Your task to perform on an android device: Search for "amazon basics triple a" on amazon.com, select the first entry, add it to the cart, then select checkout. Image 0: 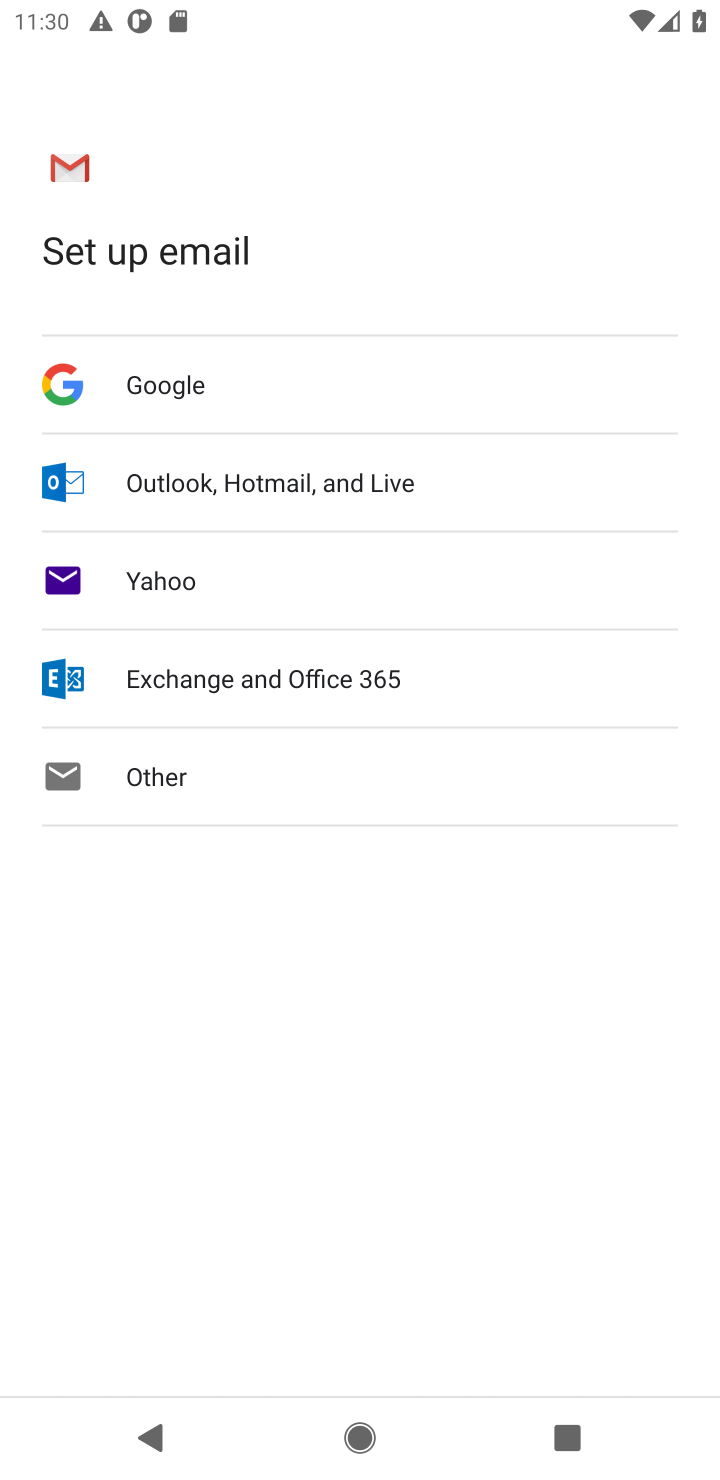
Step 0: press home button
Your task to perform on an android device: Search for "amazon basics triple a" on amazon.com, select the first entry, add it to the cart, then select checkout. Image 1: 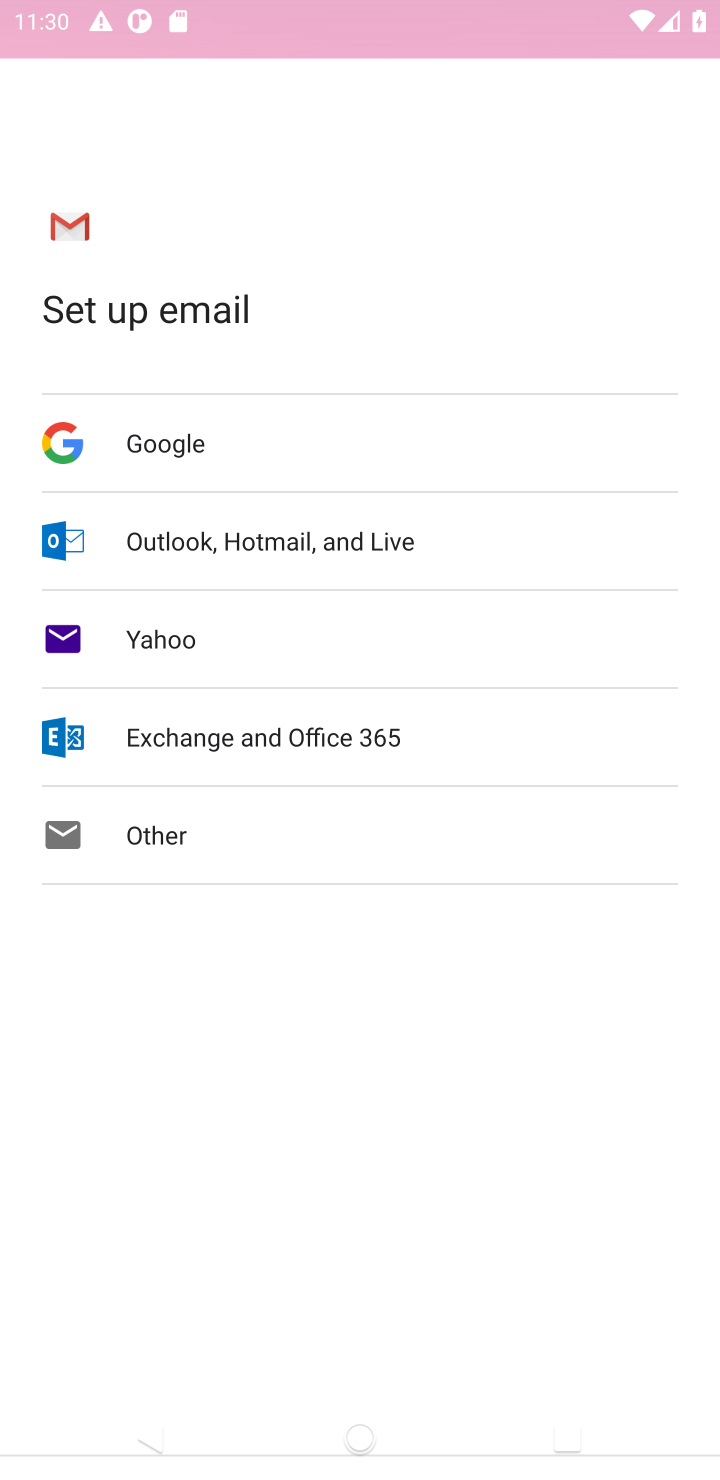
Step 1: press home button
Your task to perform on an android device: Search for "amazon basics triple a" on amazon.com, select the first entry, add it to the cart, then select checkout. Image 2: 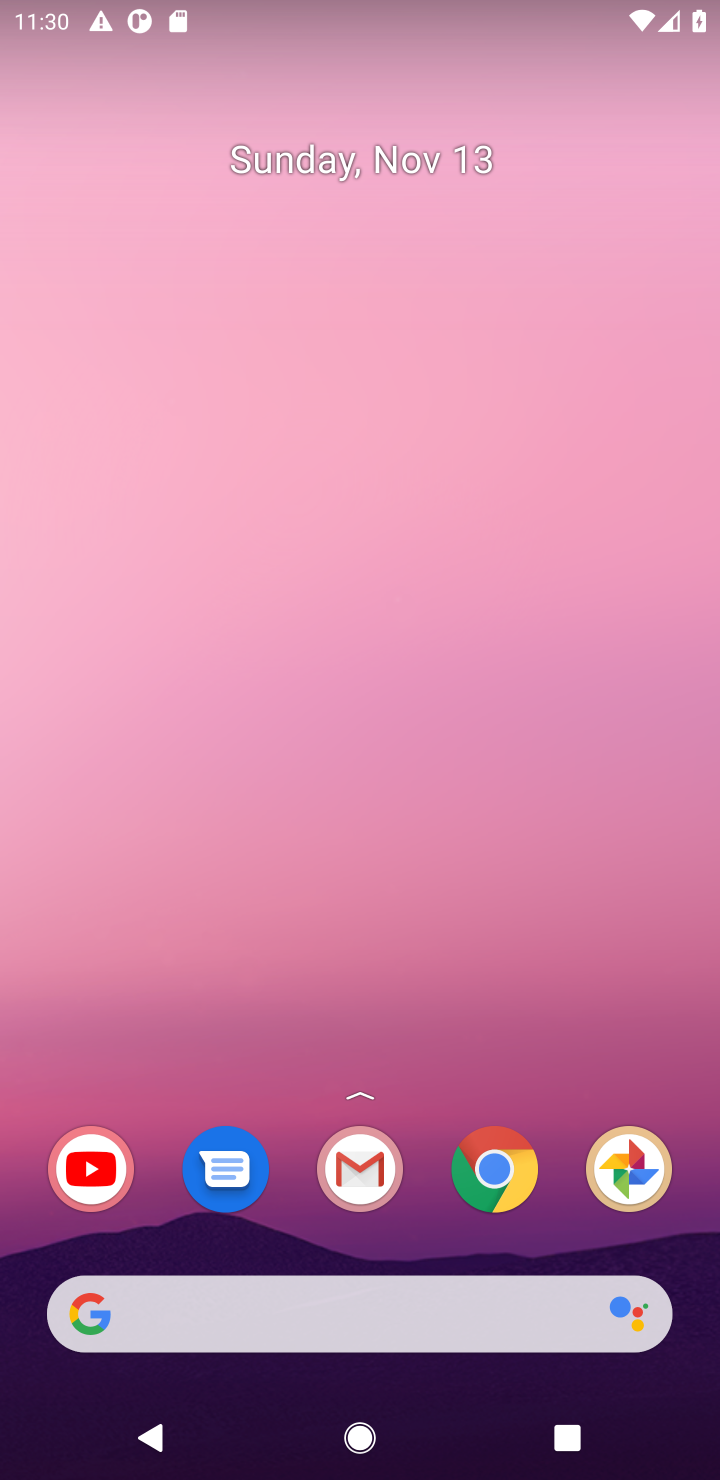
Step 2: drag from (559, 647) to (600, 1)
Your task to perform on an android device: Search for "amazon basics triple a" on amazon.com, select the first entry, add it to the cart, then select checkout. Image 3: 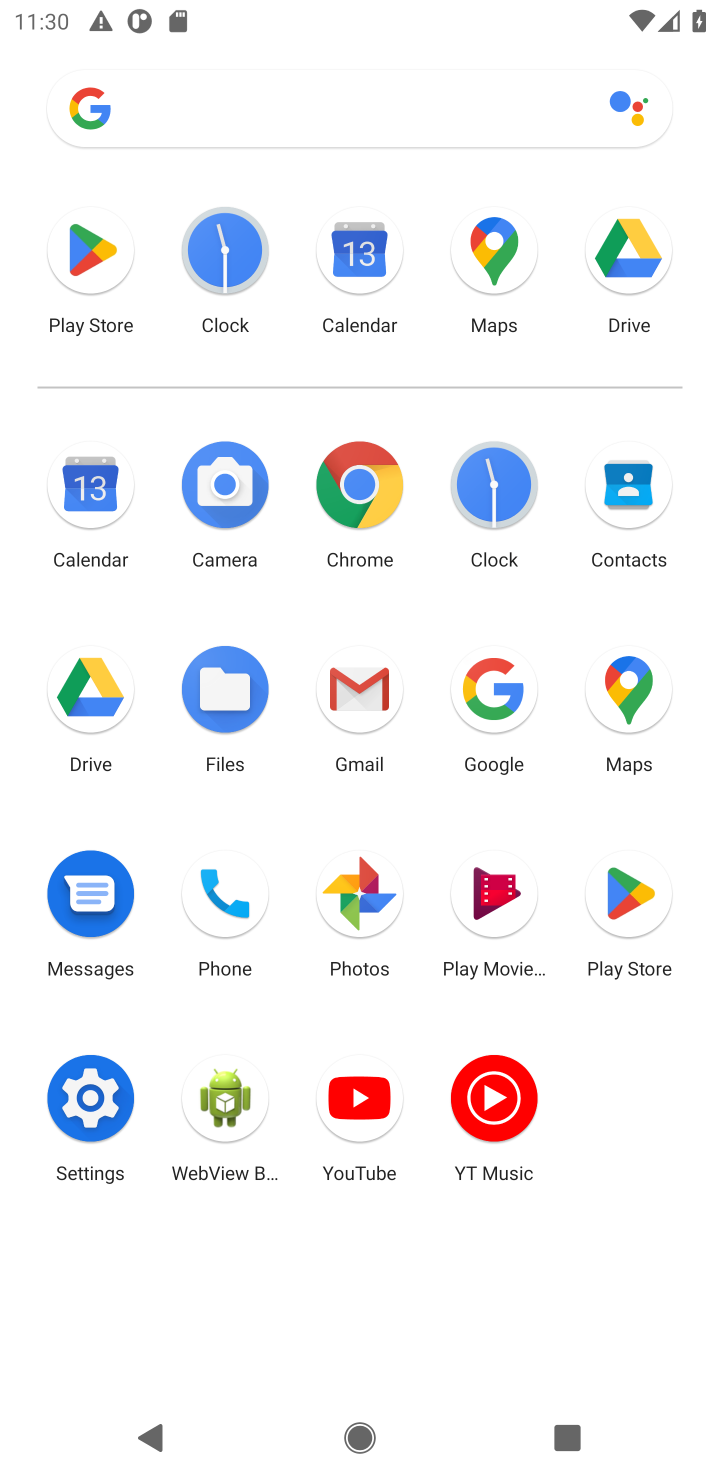
Step 3: click (364, 491)
Your task to perform on an android device: Search for "amazon basics triple a" on amazon.com, select the first entry, add it to the cart, then select checkout. Image 4: 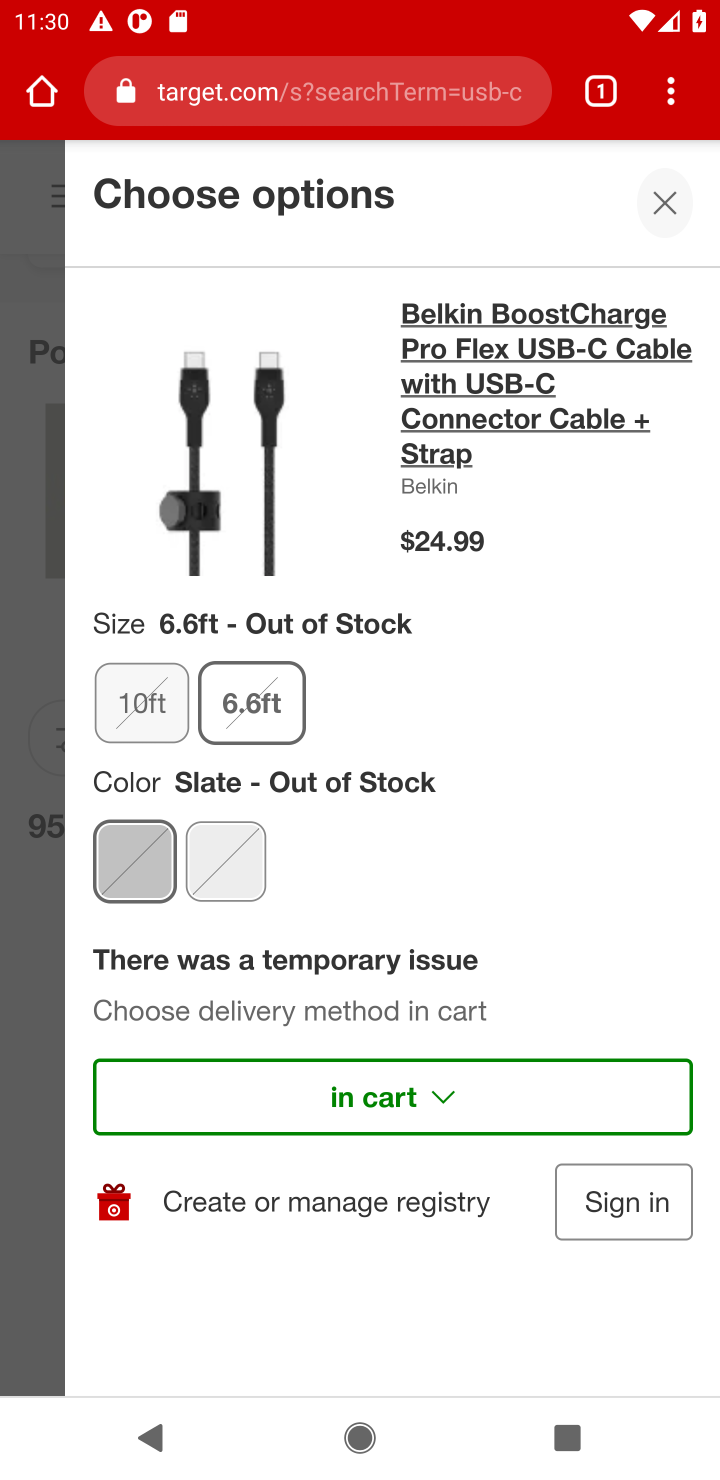
Step 4: click (361, 110)
Your task to perform on an android device: Search for "amazon basics triple a" on amazon.com, select the first entry, add it to the cart, then select checkout. Image 5: 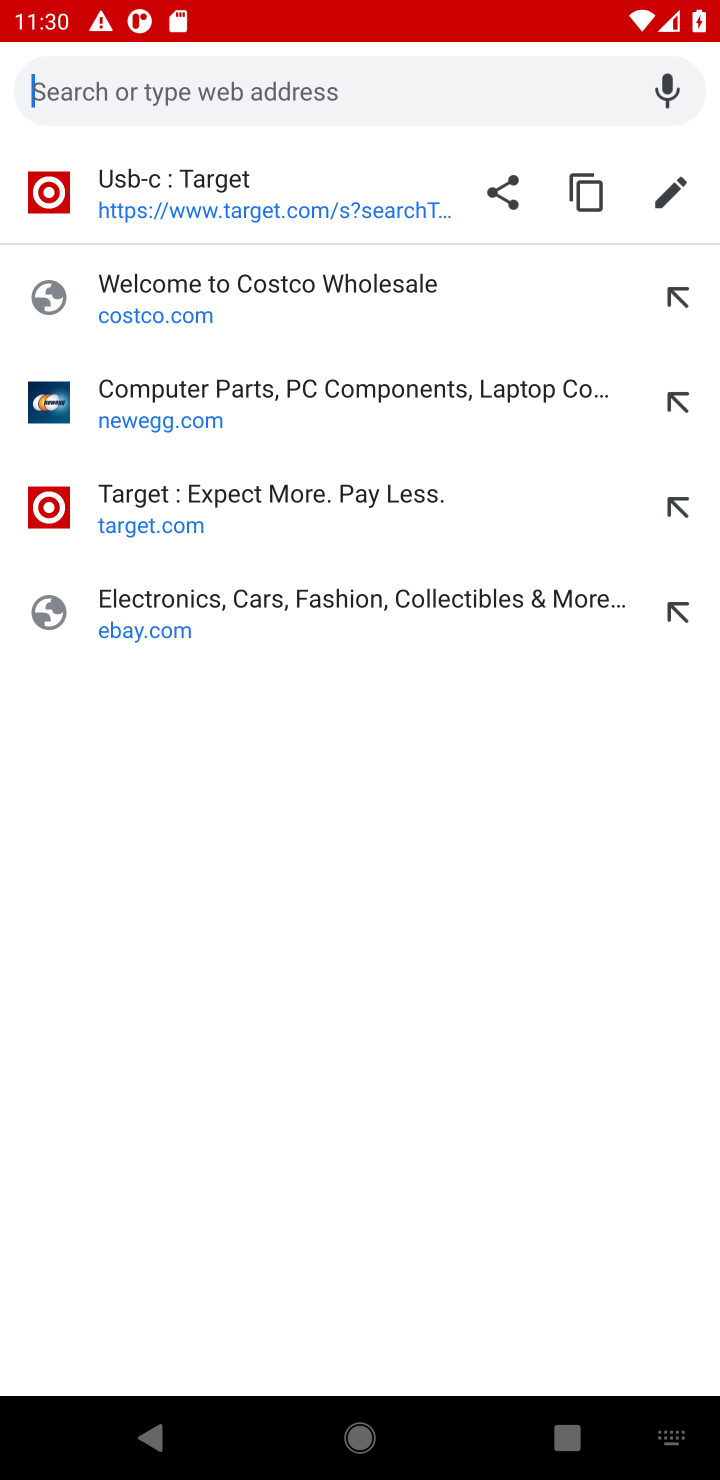
Step 5: type "amazon.com"
Your task to perform on an android device: Search for "amazon basics triple a" on amazon.com, select the first entry, add it to the cart, then select checkout. Image 6: 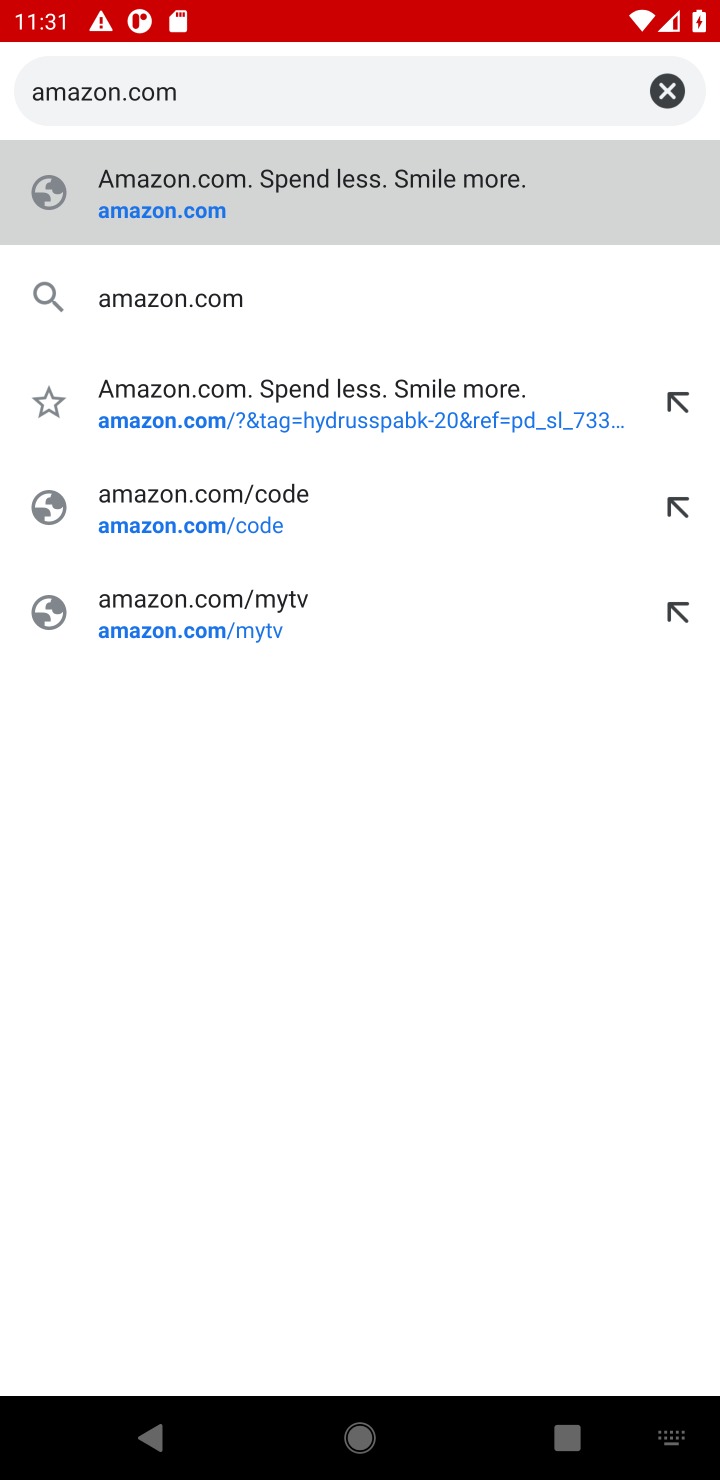
Step 6: press enter
Your task to perform on an android device: Search for "amazon basics triple a" on amazon.com, select the first entry, add it to the cart, then select checkout. Image 7: 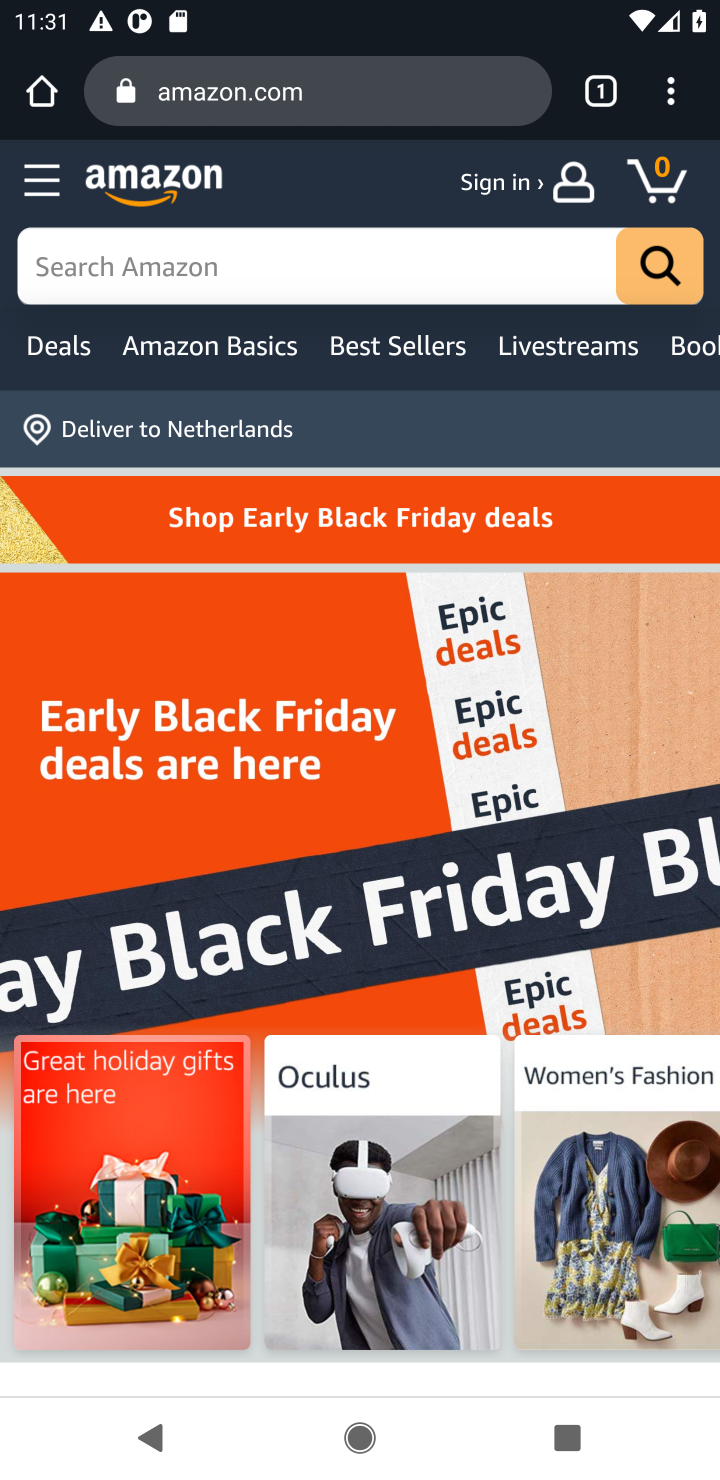
Step 7: click (343, 266)
Your task to perform on an android device: Search for "amazon basics triple a" on amazon.com, select the first entry, add it to the cart, then select checkout. Image 8: 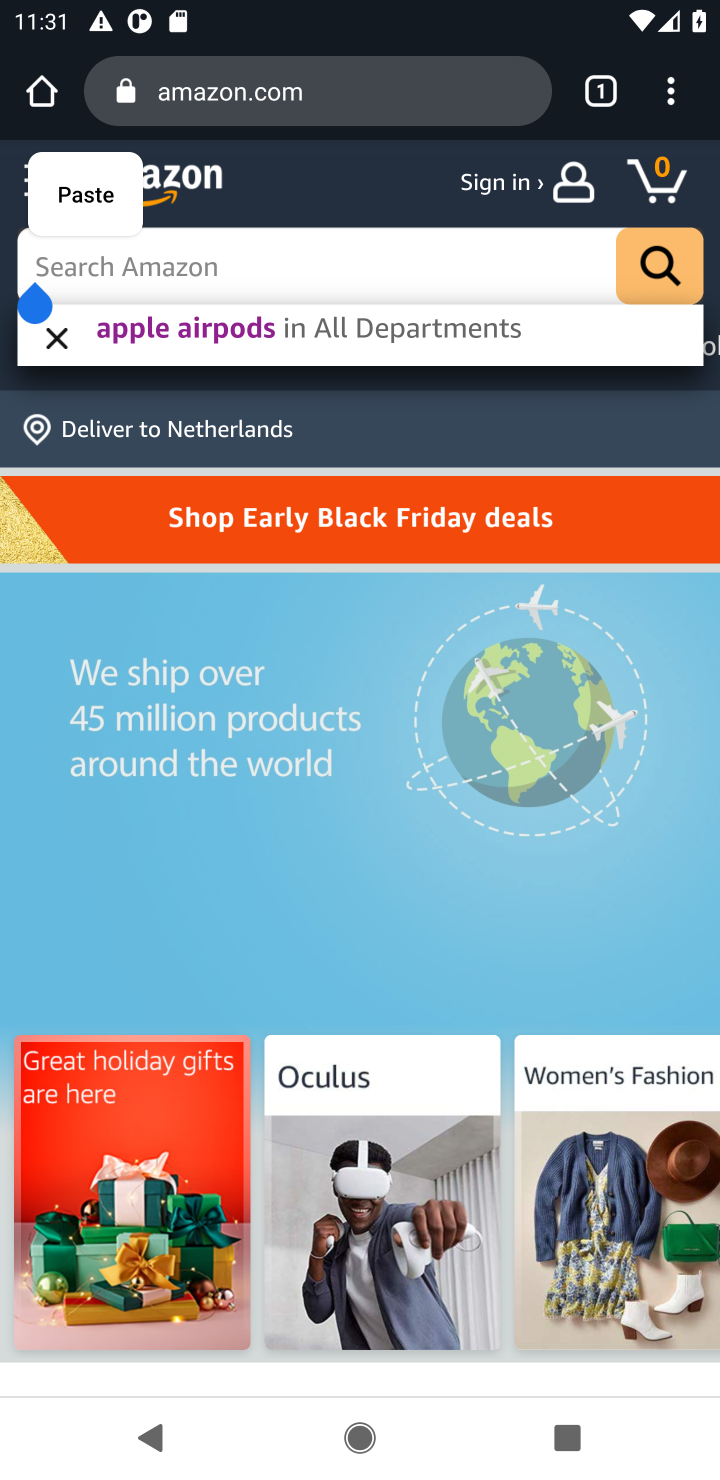
Step 8: type "amazon basics triple a"
Your task to perform on an android device: Search for "amazon basics triple a" on amazon.com, select the first entry, add it to the cart, then select checkout. Image 9: 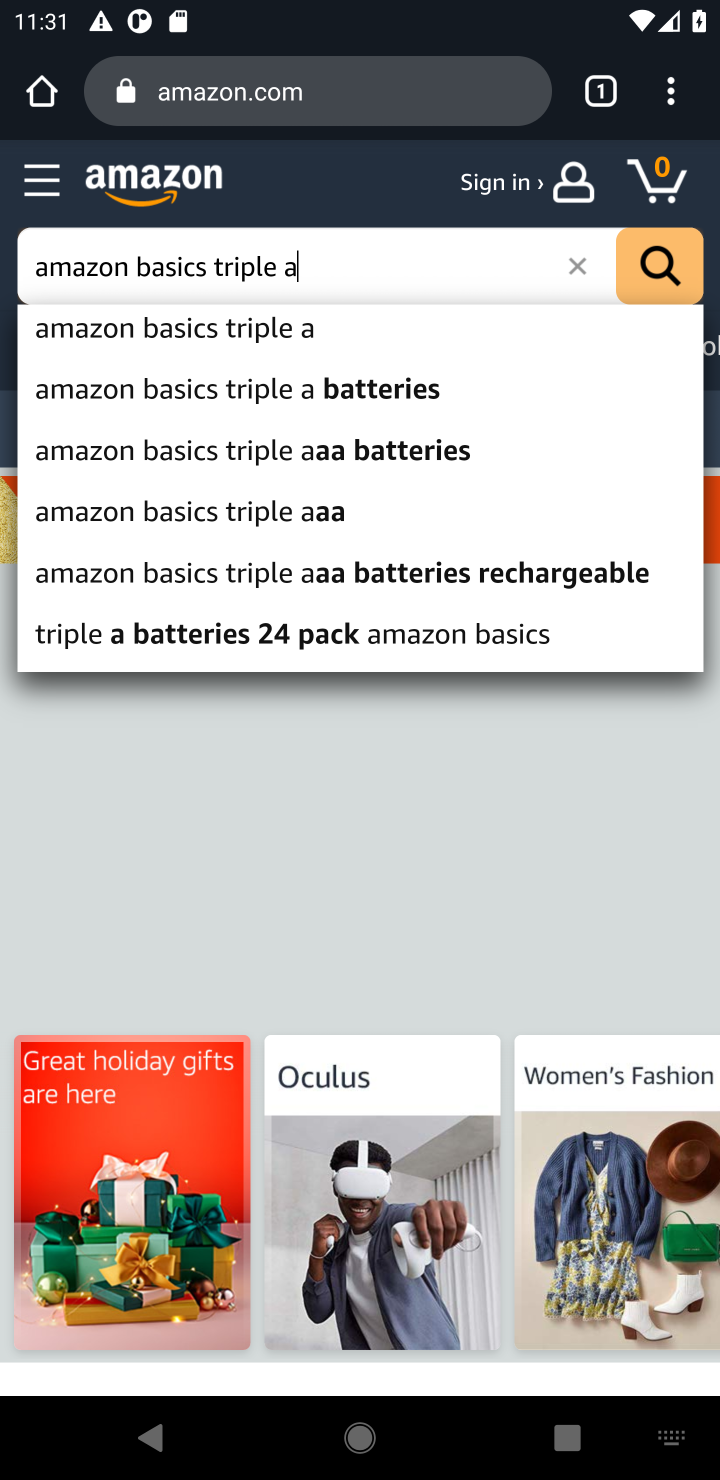
Step 9: press enter
Your task to perform on an android device: Search for "amazon basics triple a" on amazon.com, select the first entry, add it to the cart, then select checkout. Image 10: 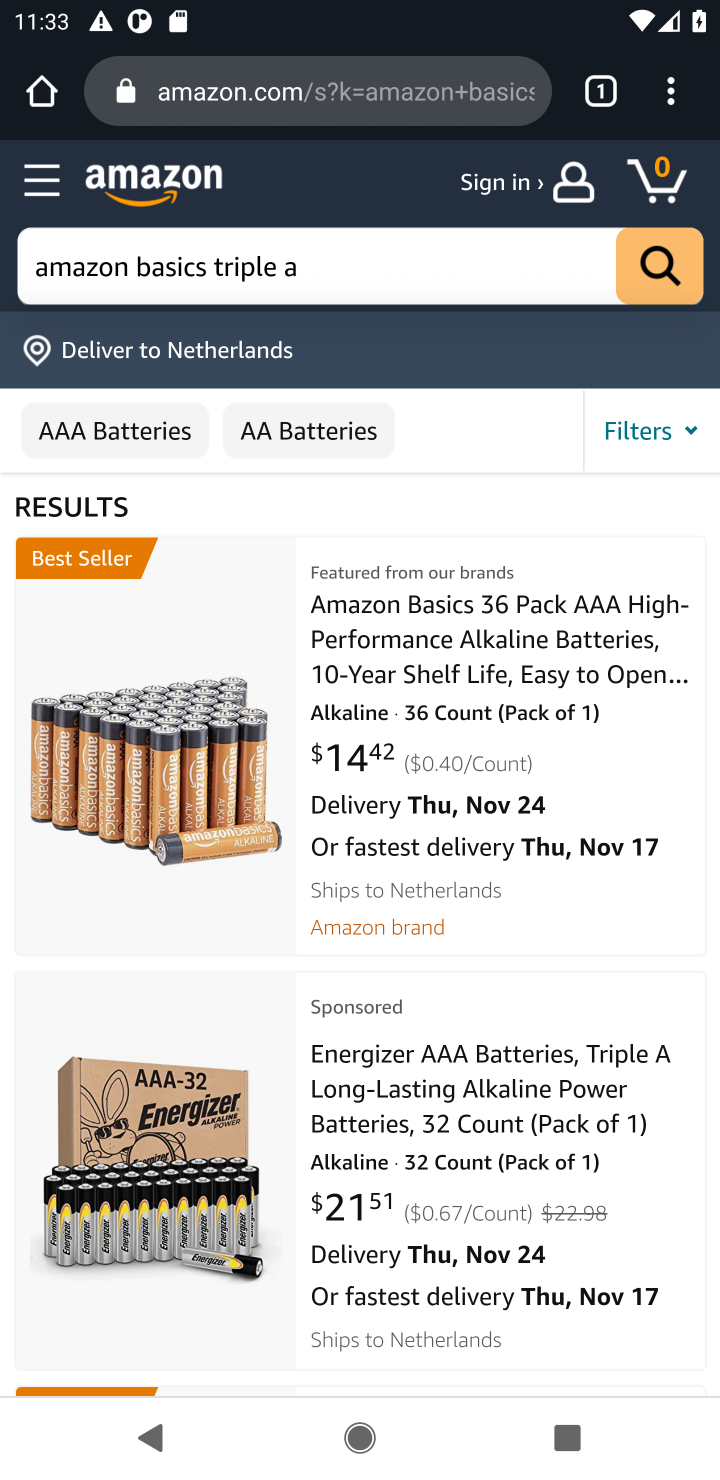
Step 10: drag from (356, 1235) to (419, 371)
Your task to perform on an android device: Search for "amazon basics triple a" on amazon.com, select the first entry, add it to the cart, then select checkout. Image 11: 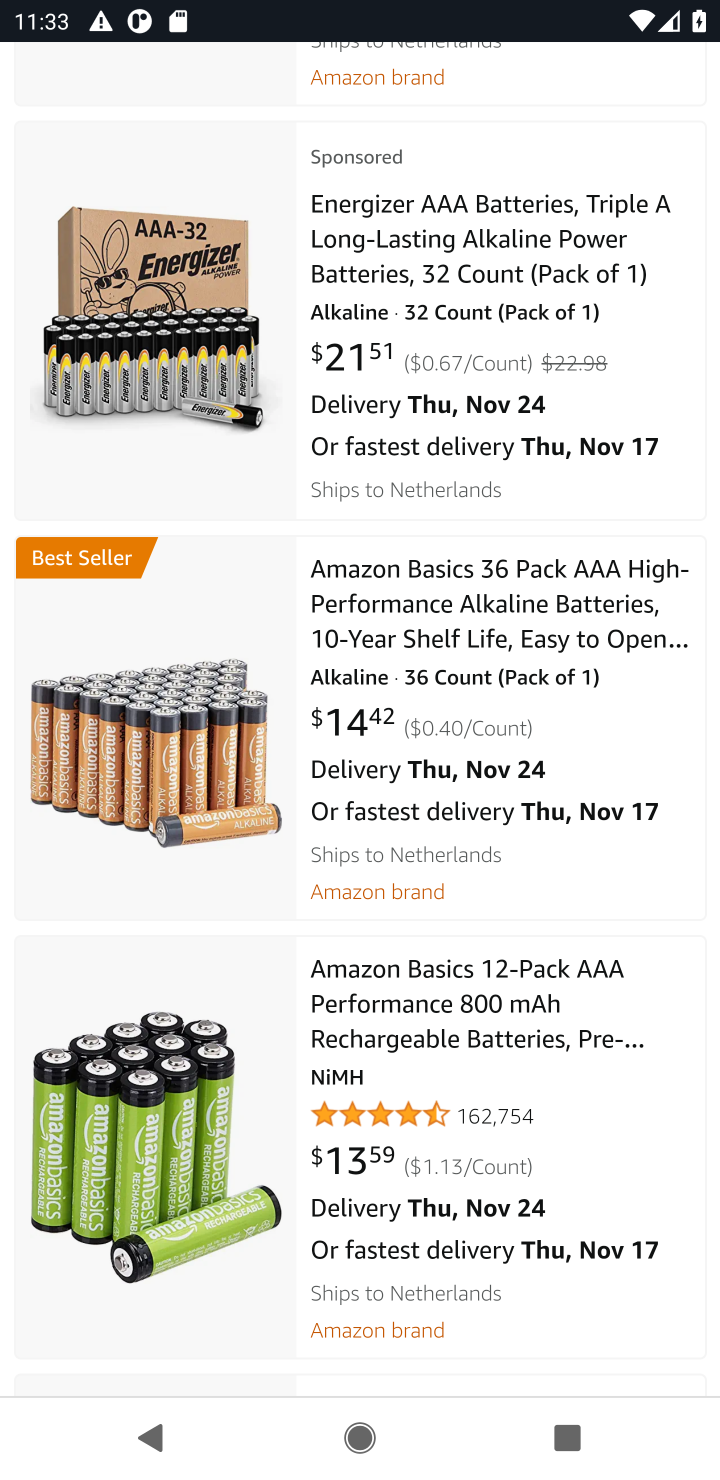
Step 11: click (399, 637)
Your task to perform on an android device: Search for "amazon basics triple a" on amazon.com, select the first entry, add it to the cart, then select checkout. Image 12: 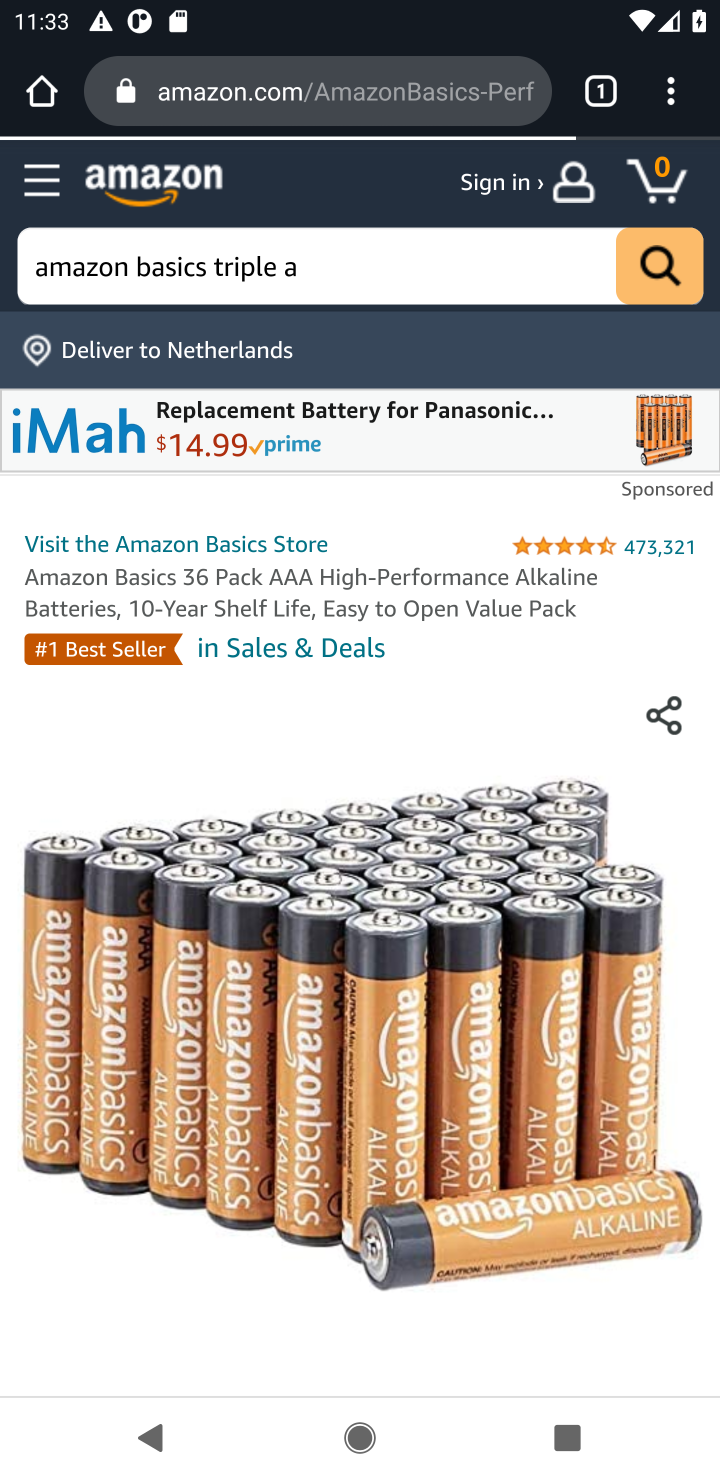
Step 12: drag from (261, 1125) to (377, 154)
Your task to perform on an android device: Search for "amazon basics triple a" on amazon.com, select the first entry, add it to the cart, then select checkout. Image 13: 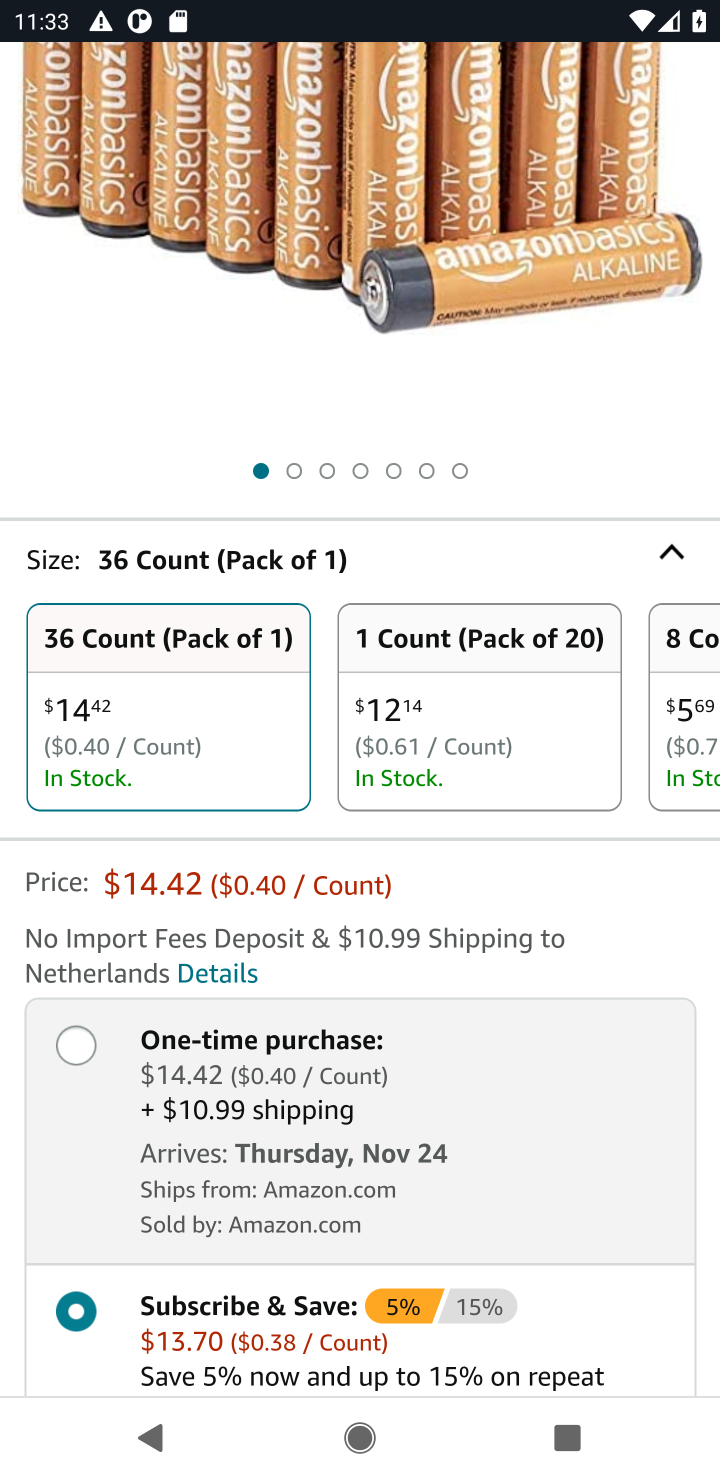
Step 13: drag from (382, 675) to (419, 165)
Your task to perform on an android device: Search for "amazon basics triple a" on amazon.com, select the first entry, add it to the cart, then select checkout. Image 14: 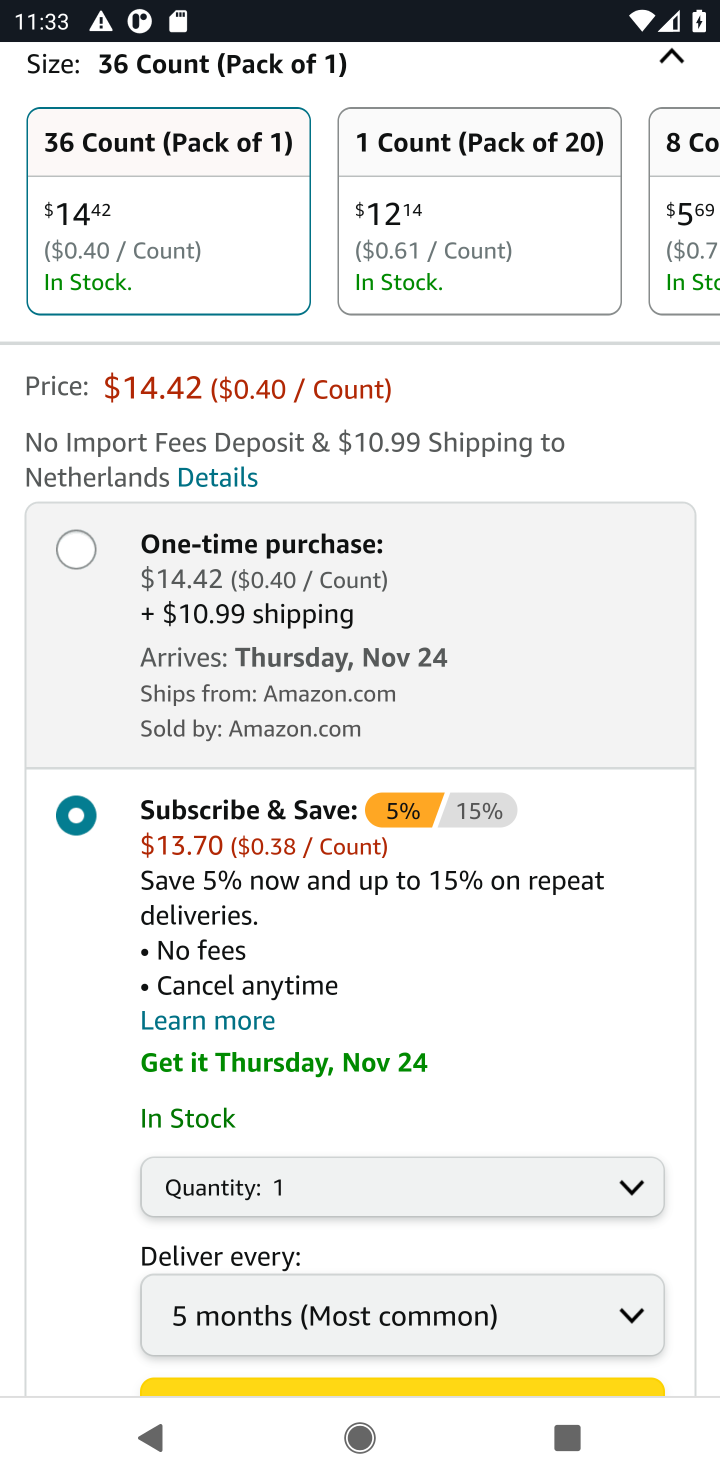
Step 14: drag from (343, 1042) to (382, 319)
Your task to perform on an android device: Search for "amazon basics triple a" on amazon.com, select the first entry, add it to the cart, then select checkout. Image 15: 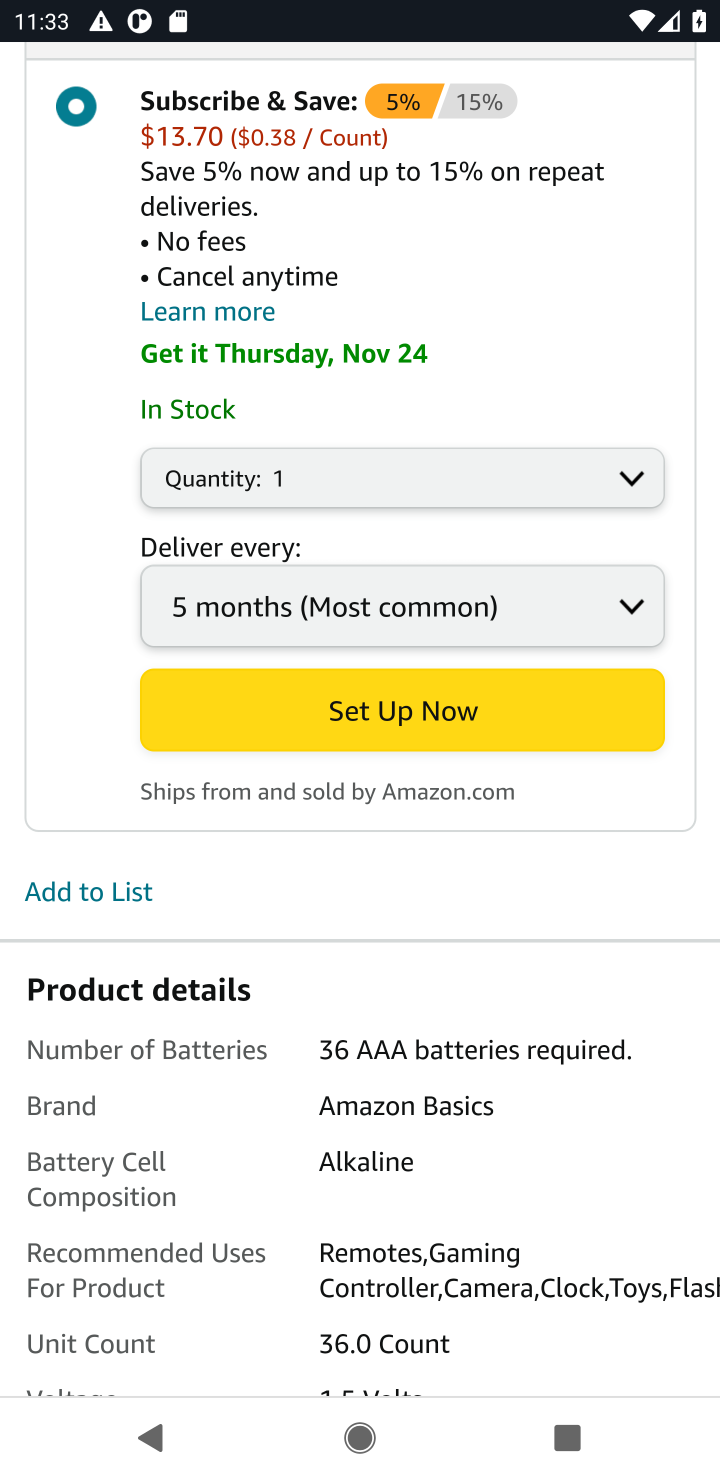
Step 15: drag from (355, 193) to (348, 1065)
Your task to perform on an android device: Search for "amazon basics triple a" on amazon.com, select the first entry, add it to the cart, then select checkout. Image 16: 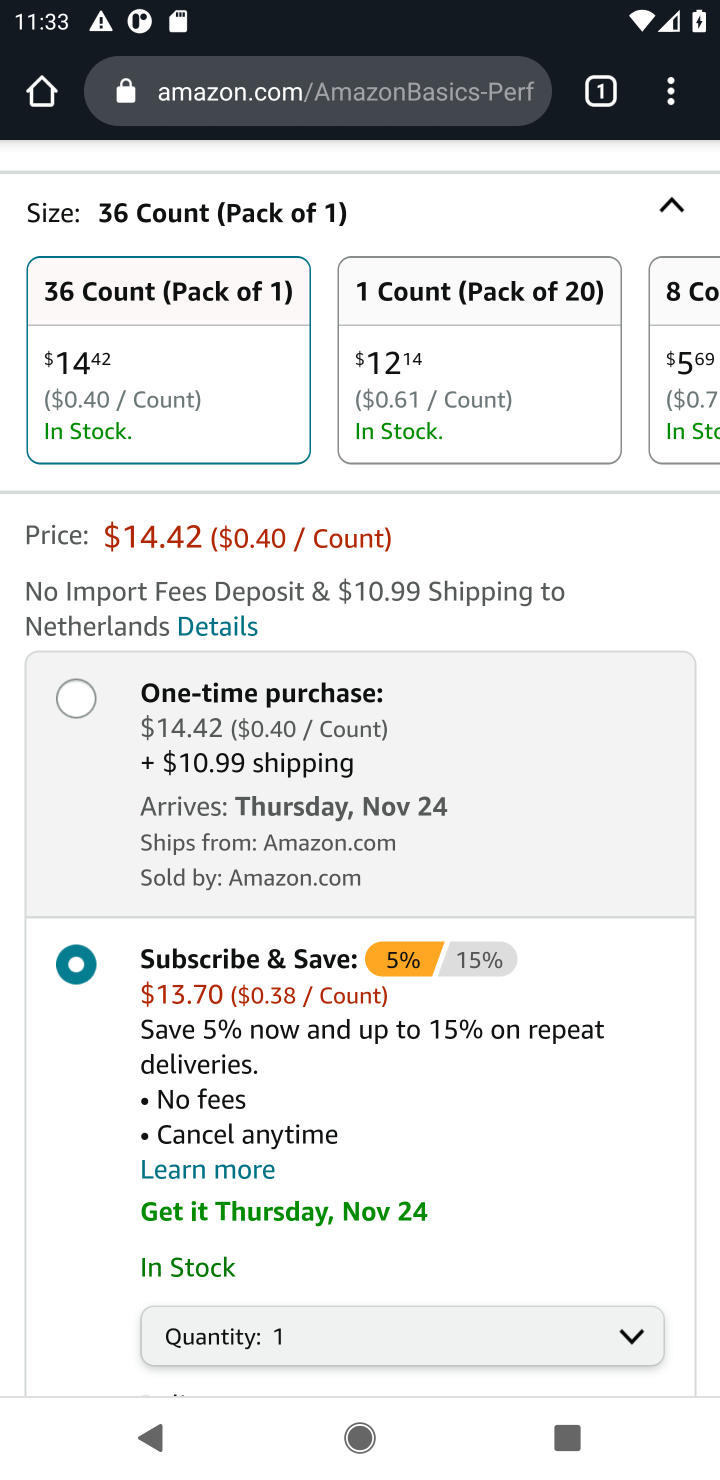
Step 16: click (90, 639)
Your task to perform on an android device: Search for "amazon basics triple a" on amazon.com, select the first entry, add it to the cart, then select checkout. Image 17: 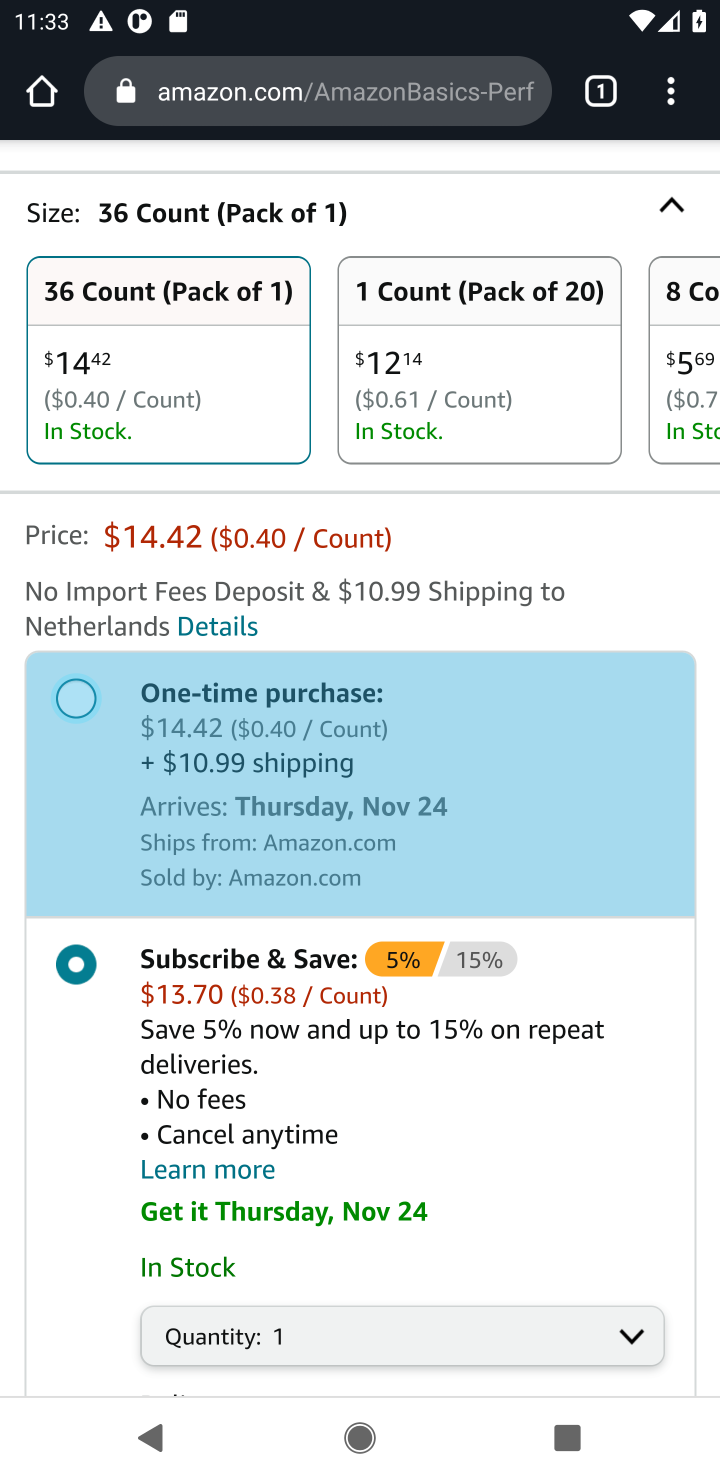
Step 17: click (94, 683)
Your task to perform on an android device: Search for "amazon basics triple a" on amazon.com, select the first entry, add it to the cart, then select checkout. Image 18: 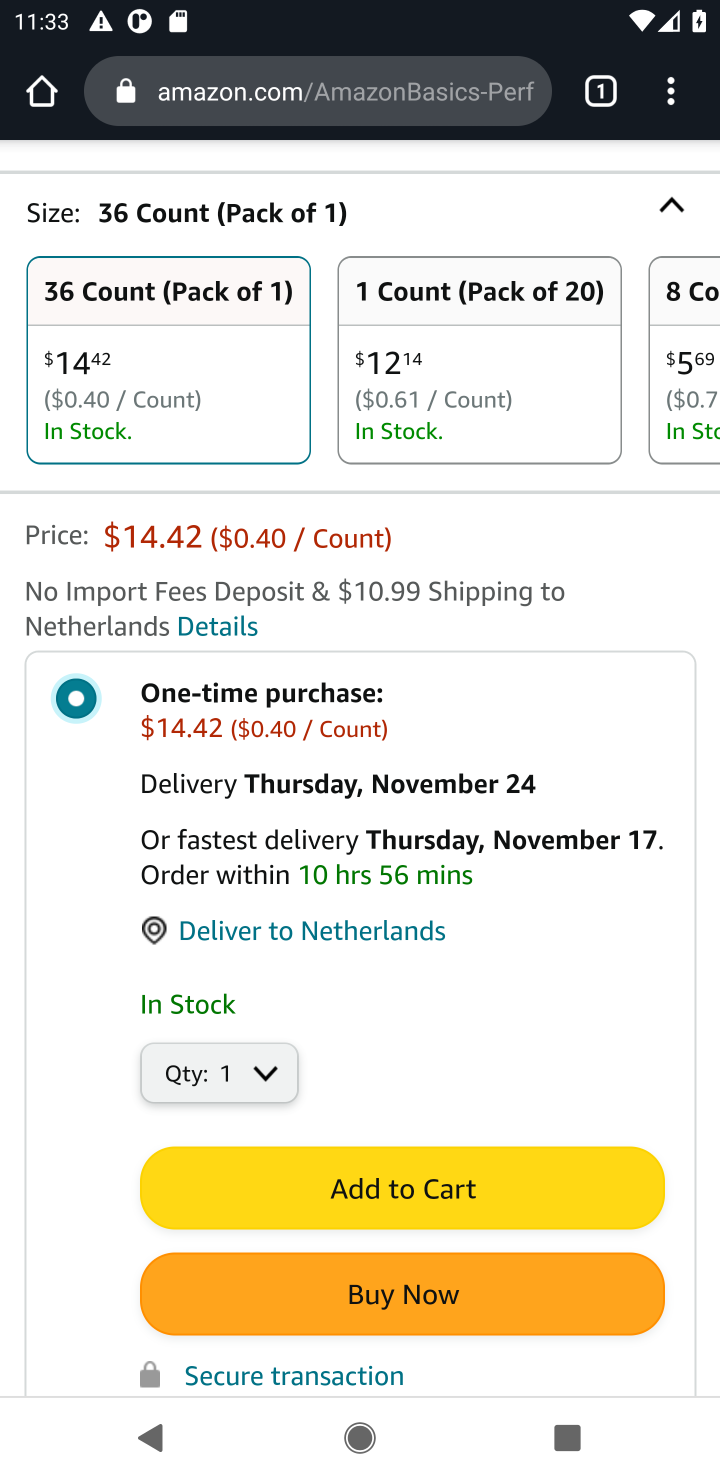
Step 18: click (438, 1208)
Your task to perform on an android device: Search for "amazon basics triple a" on amazon.com, select the first entry, add it to the cart, then select checkout. Image 19: 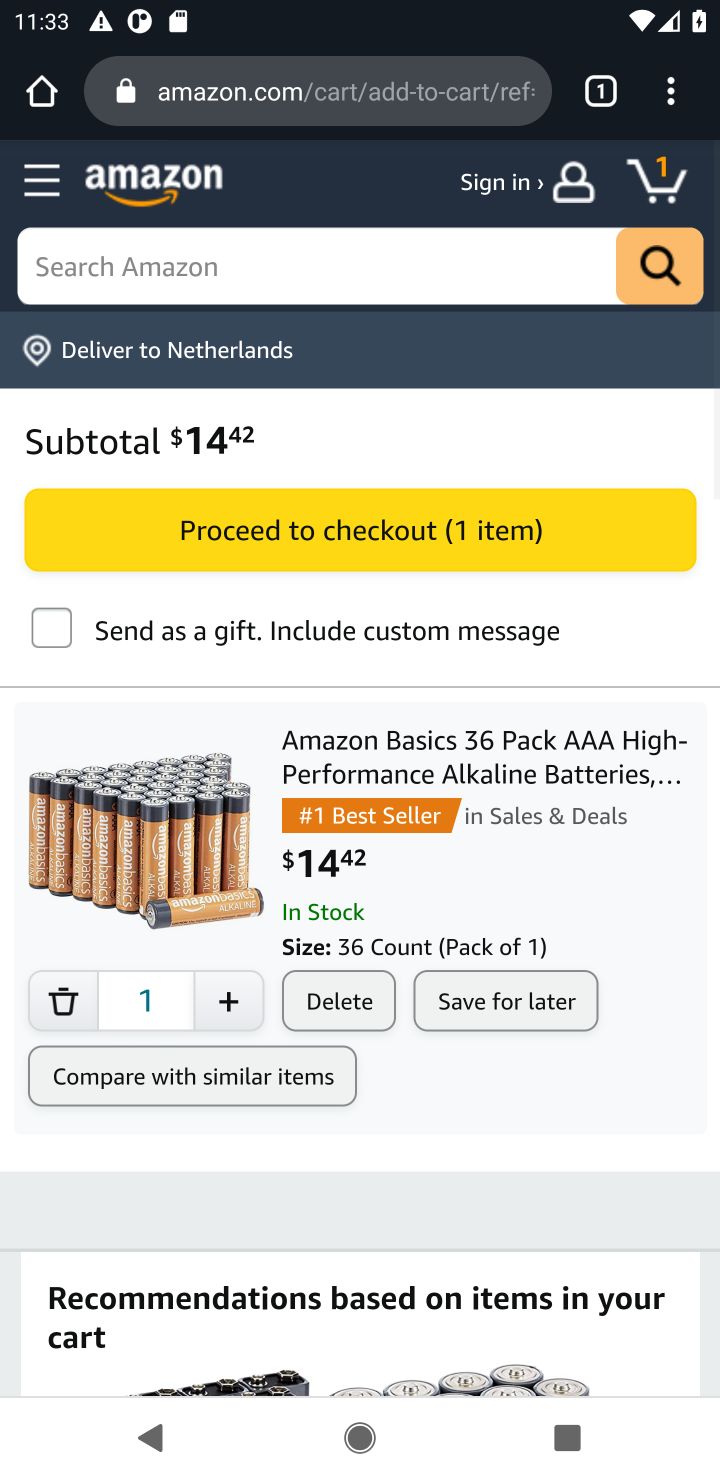
Step 19: task complete